Your task to perform on an android device: Open ESPN.com Image 0: 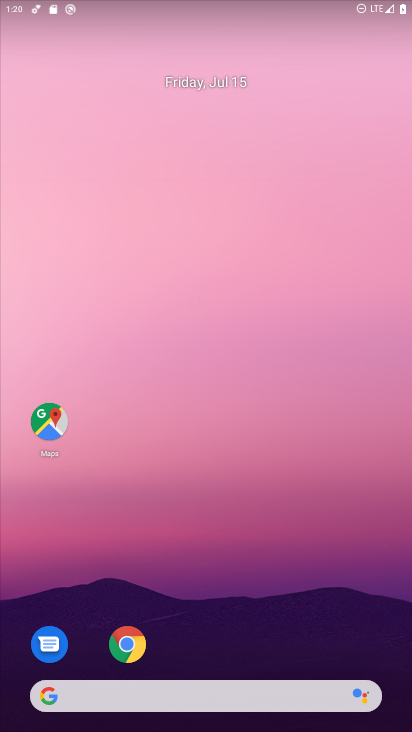
Step 0: click (123, 651)
Your task to perform on an android device: Open ESPN.com Image 1: 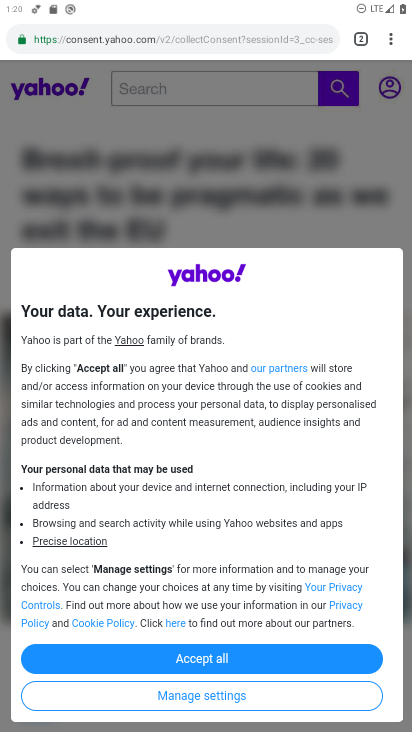
Step 1: click (362, 34)
Your task to perform on an android device: Open ESPN.com Image 2: 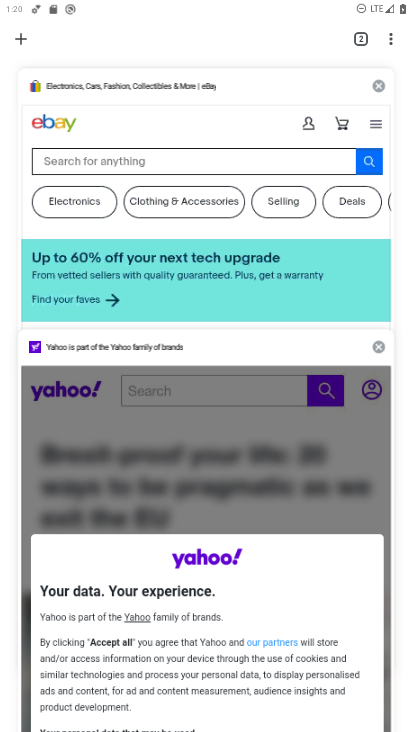
Step 2: click (381, 75)
Your task to perform on an android device: Open ESPN.com Image 3: 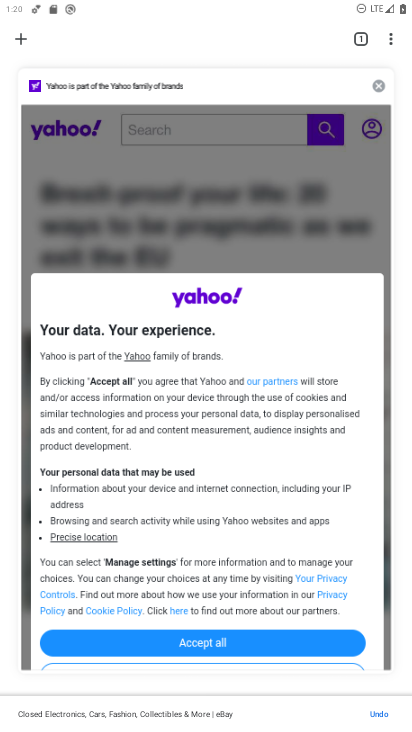
Step 3: click (379, 86)
Your task to perform on an android device: Open ESPN.com Image 4: 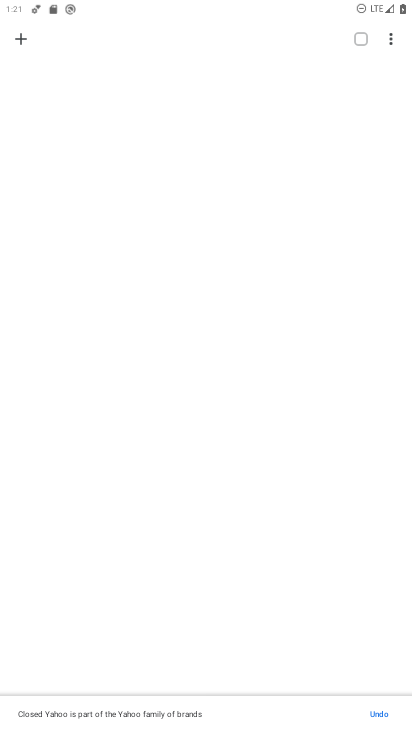
Step 4: click (20, 36)
Your task to perform on an android device: Open ESPN.com Image 5: 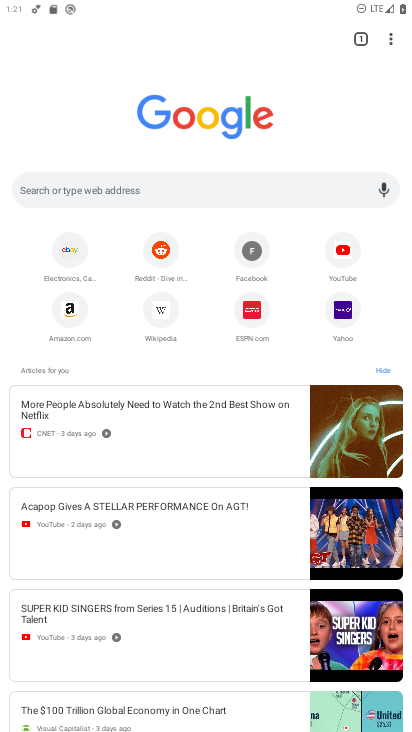
Step 5: click (228, 304)
Your task to perform on an android device: Open ESPN.com Image 6: 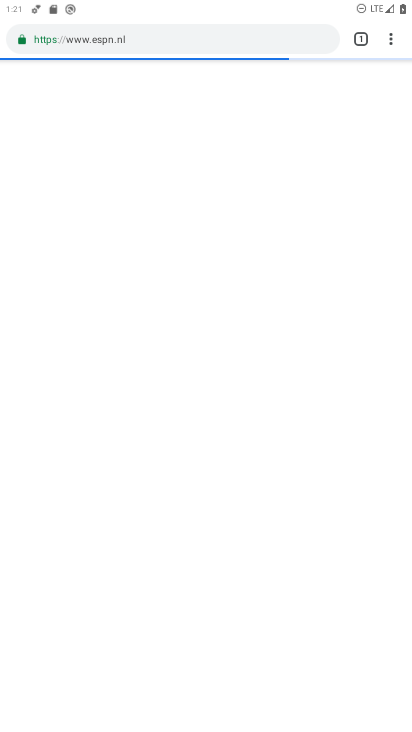
Step 6: task complete